Your task to perform on an android device: check android version Image 0: 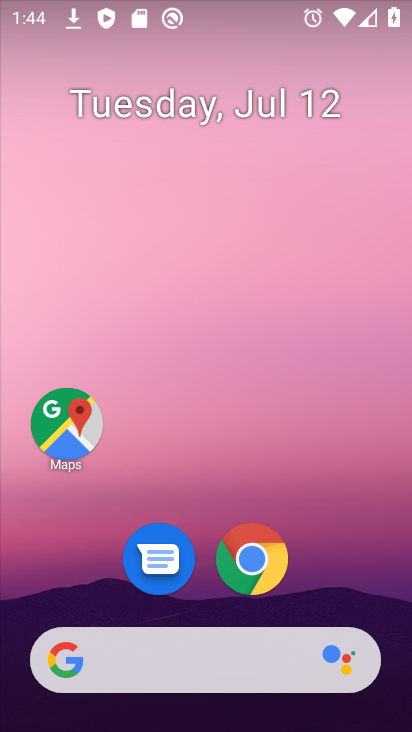
Step 0: drag from (366, 582) to (360, 189)
Your task to perform on an android device: check android version Image 1: 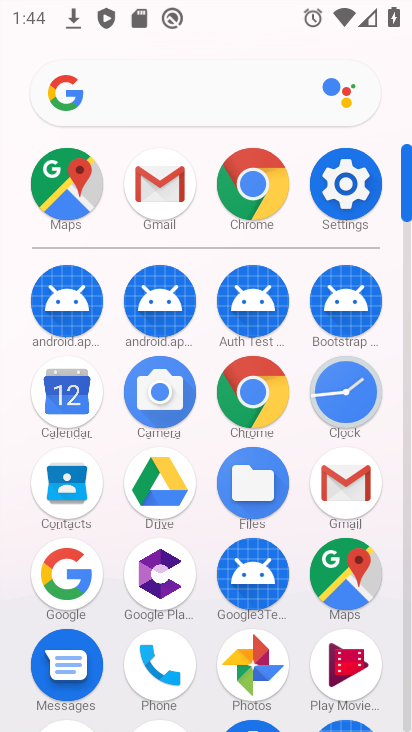
Step 1: click (356, 200)
Your task to perform on an android device: check android version Image 2: 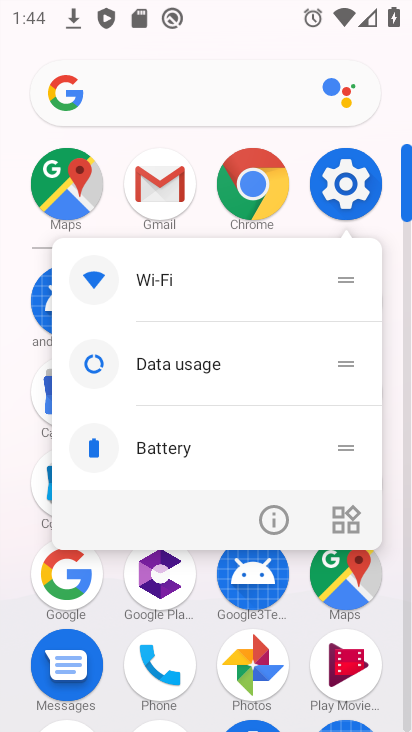
Step 2: click (356, 200)
Your task to perform on an android device: check android version Image 3: 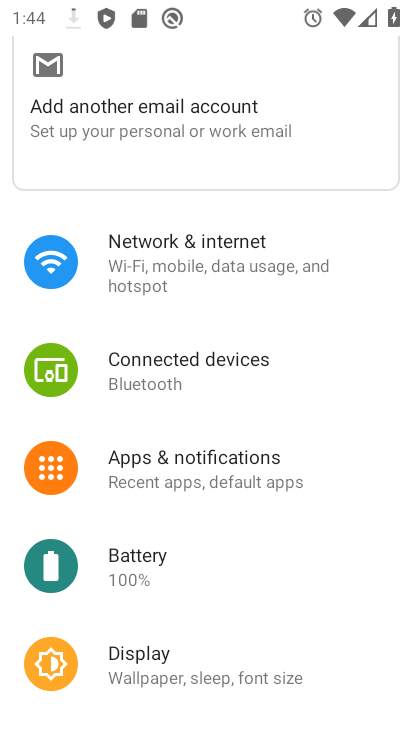
Step 3: drag from (358, 277) to (356, 241)
Your task to perform on an android device: check android version Image 4: 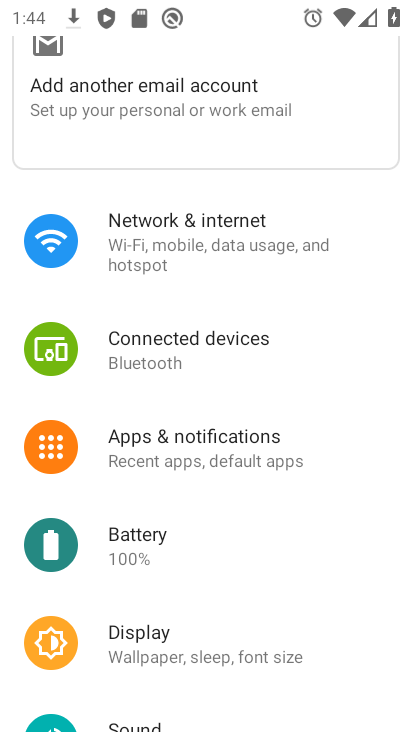
Step 4: drag from (359, 282) to (360, 227)
Your task to perform on an android device: check android version Image 5: 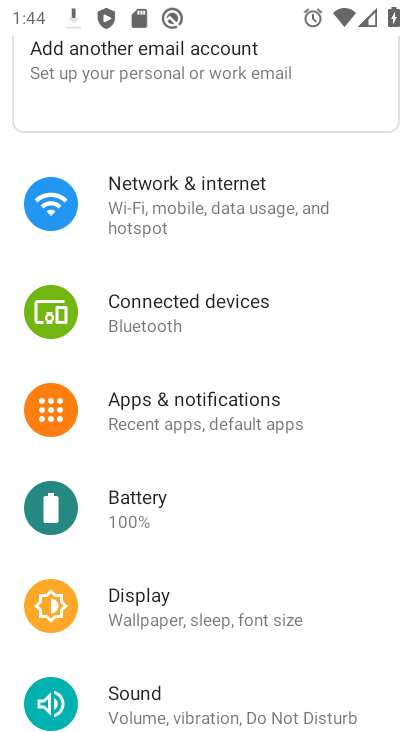
Step 5: drag from (360, 278) to (361, 225)
Your task to perform on an android device: check android version Image 6: 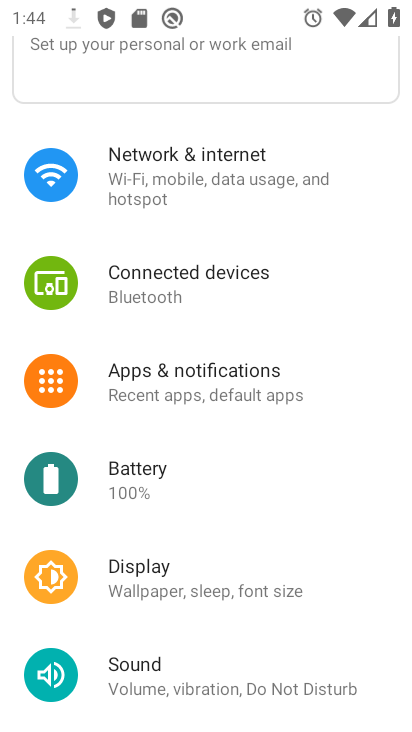
Step 6: drag from (355, 267) to (358, 224)
Your task to perform on an android device: check android version Image 7: 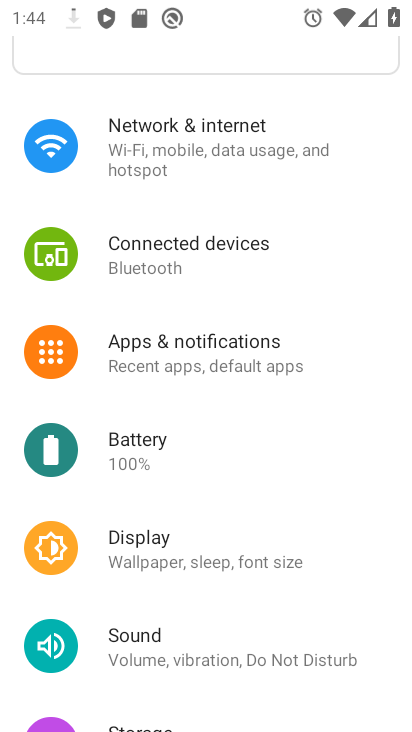
Step 7: drag from (350, 284) to (354, 214)
Your task to perform on an android device: check android version Image 8: 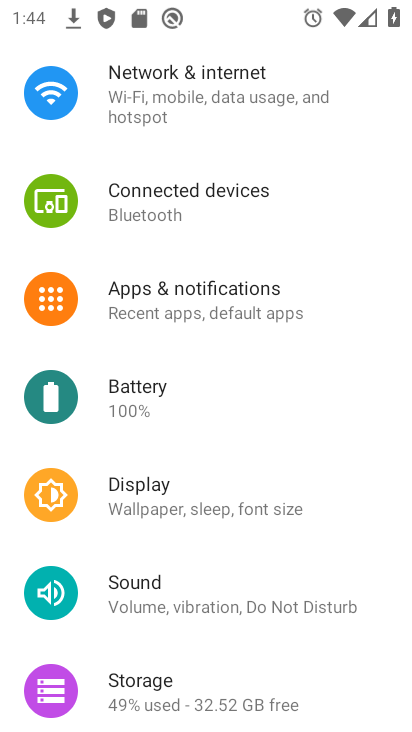
Step 8: drag from (343, 273) to (342, 215)
Your task to perform on an android device: check android version Image 9: 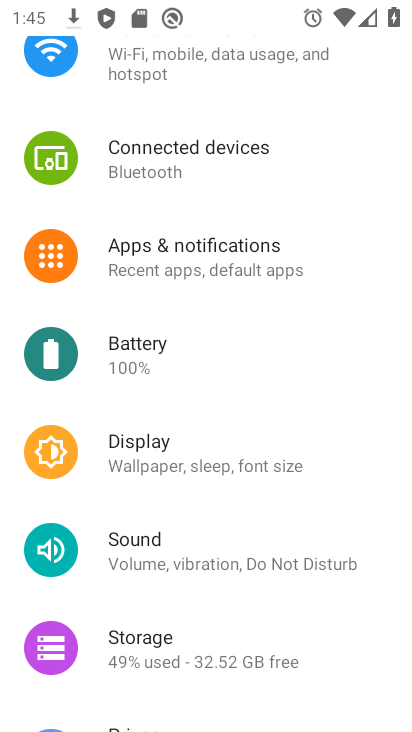
Step 9: drag from (342, 251) to (343, 194)
Your task to perform on an android device: check android version Image 10: 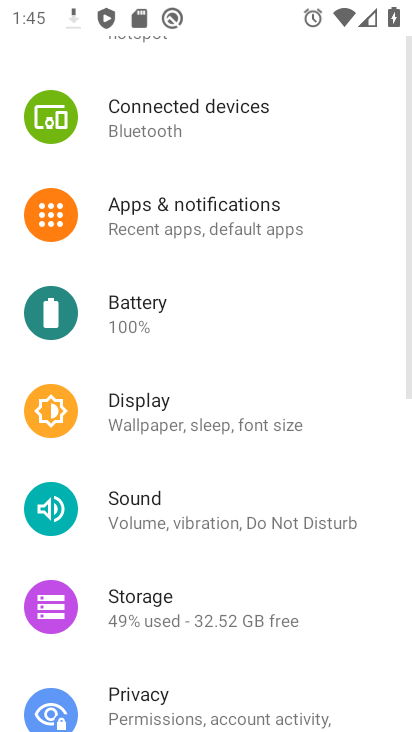
Step 10: drag from (343, 281) to (339, 224)
Your task to perform on an android device: check android version Image 11: 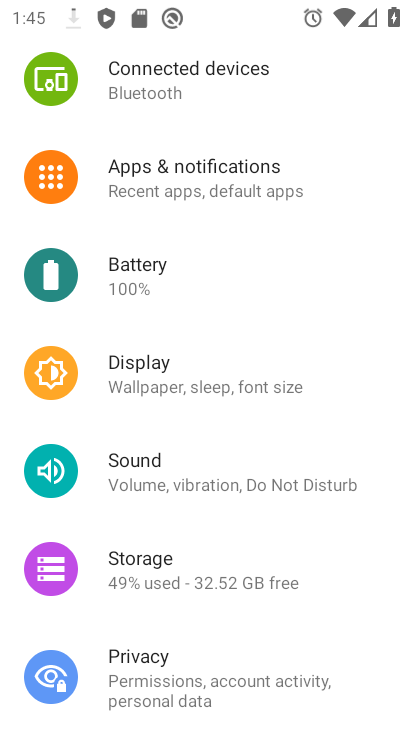
Step 11: drag from (336, 281) to (343, 221)
Your task to perform on an android device: check android version Image 12: 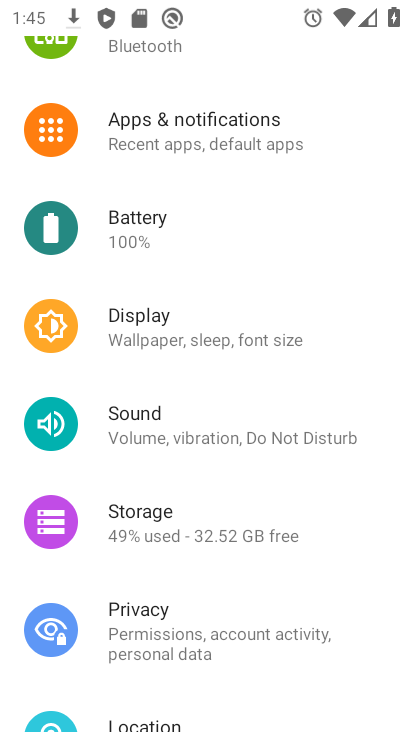
Step 12: drag from (343, 274) to (337, 205)
Your task to perform on an android device: check android version Image 13: 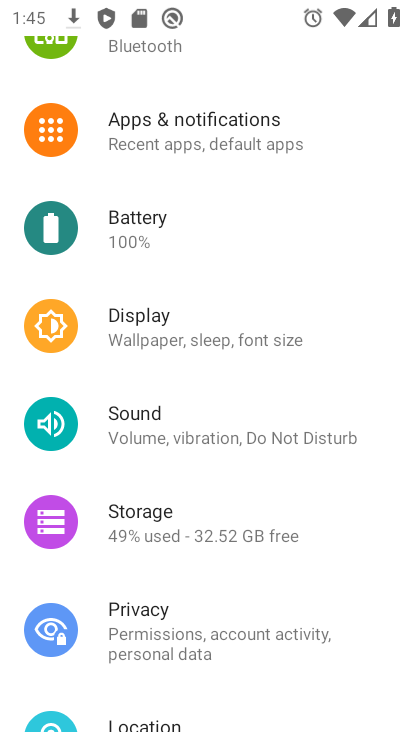
Step 13: drag from (348, 326) to (348, 232)
Your task to perform on an android device: check android version Image 14: 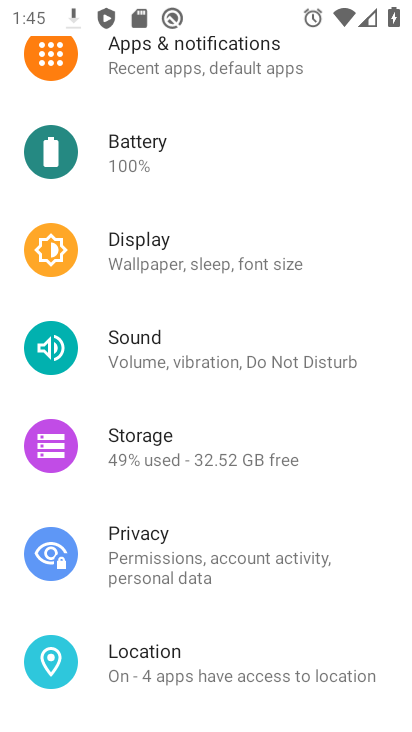
Step 14: drag from (363, 318) to (366, 218)
Your task to perform on an android device: check android version Image 15: 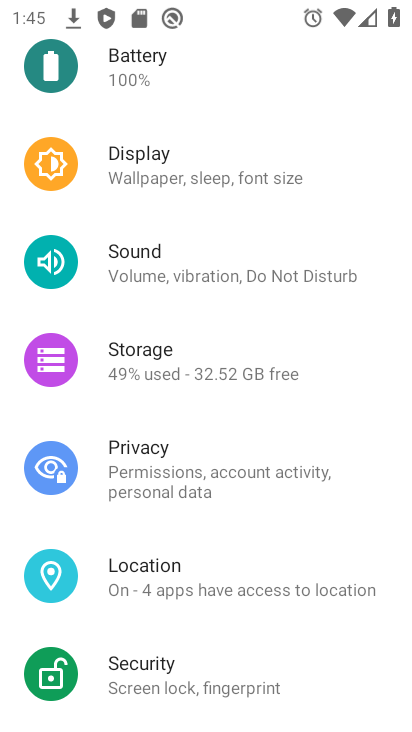
Step 15: drag from (365, 321) to (361, 200)
Your task to perform on an android device: check android version Image 16: 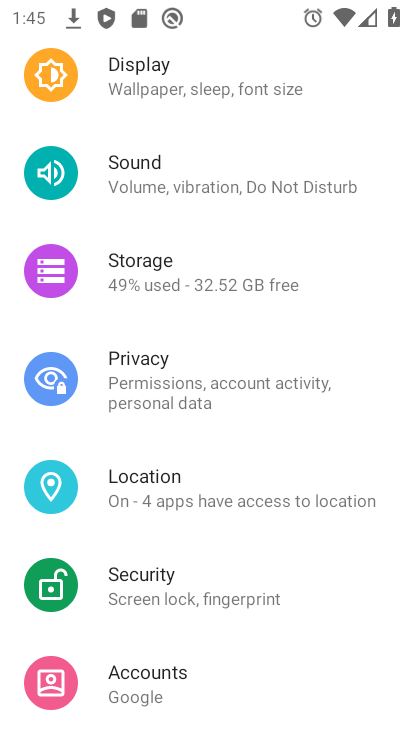
Step 16: drag from (367, 381) to (366, 282)
Your task to perform on an android device: check android version Image 17: 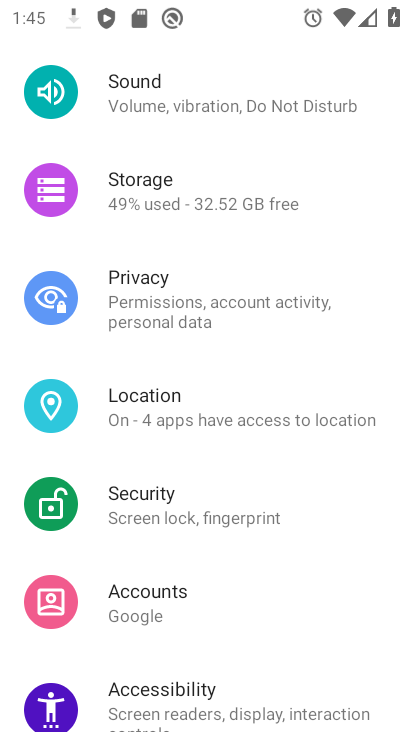
Step 17: drag from (362, 372) to (367, 258)
Your task to perform on an android device: check android version Image 18: 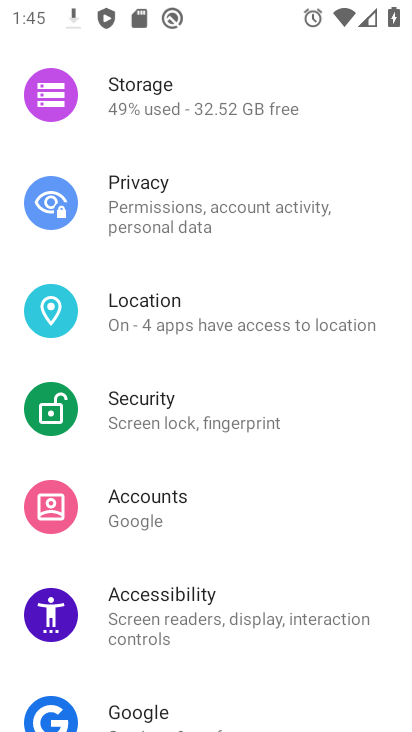
Step 18: drag from (356, 373) to (361, 263)
Your task to perform on an android device: check android version Image 19: 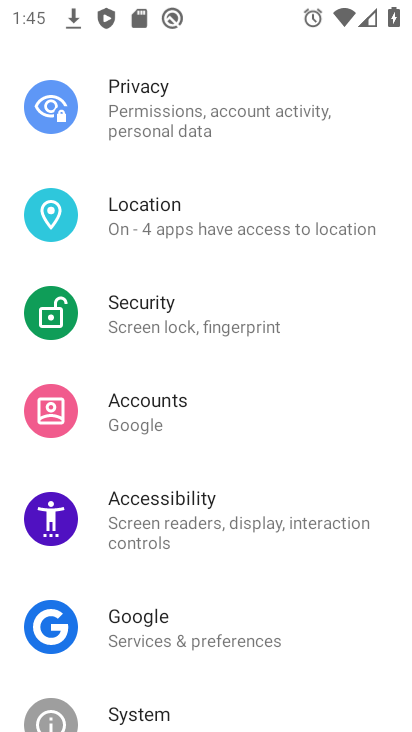
Step 19: drag from (343, 352) to (347, 179)
Your task to perform on an android device: check android version Image 20: 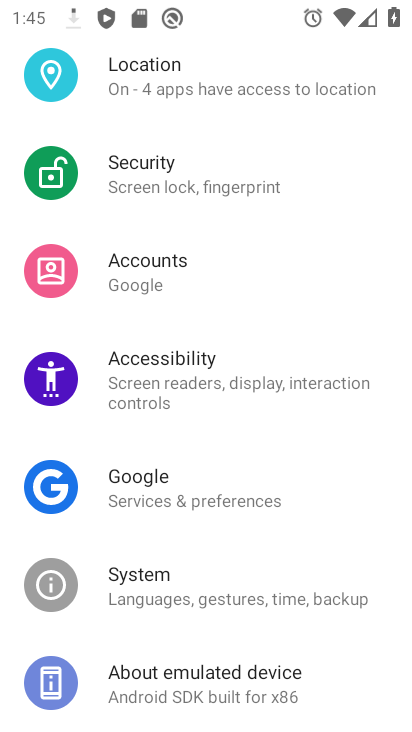
Step 20: drag from (356, 414) to (357, 301)
Your task to perform on an android device: check android version Image 21: 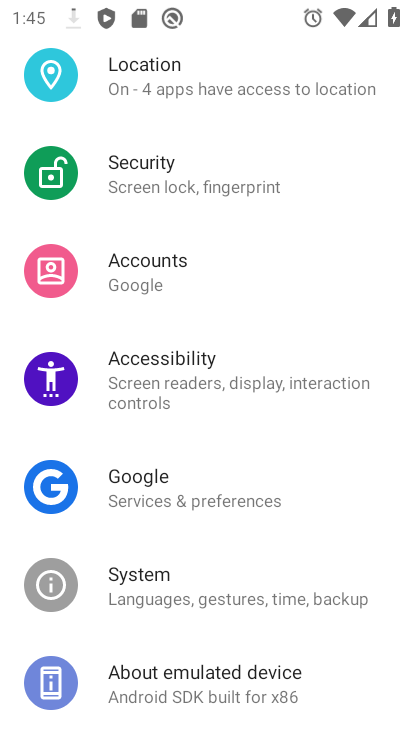
Step 21: click (313, 597)
Your task to perform on an android device: check android version Image 22: 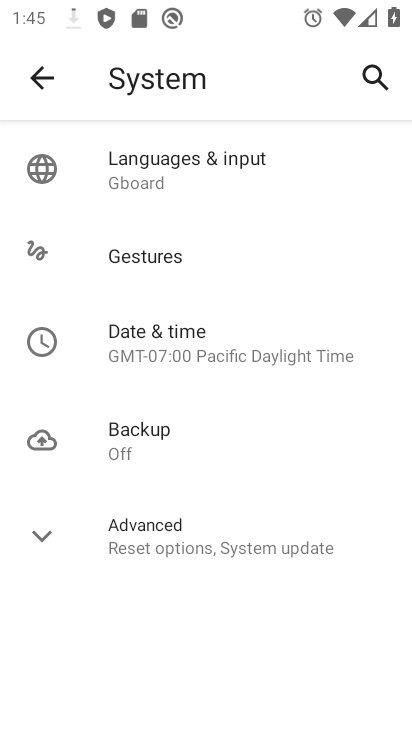
Step 22: click (284, 534)
Your task to perform on an android device: check android version Image 23: 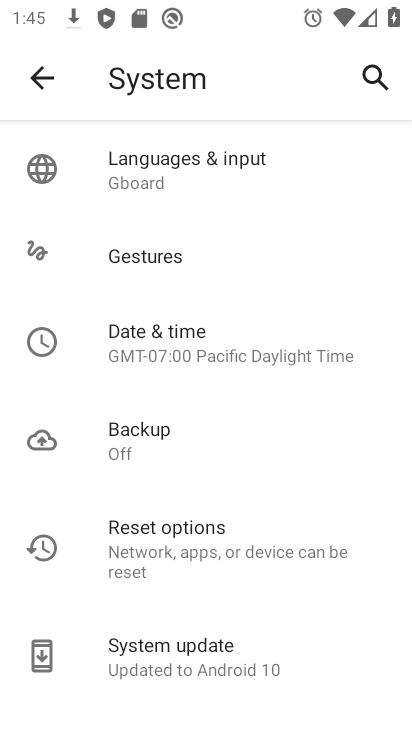
Step 23: drag from (274, 593) to (273, 492)
Your task to perform on an android device: check android version Image 24: 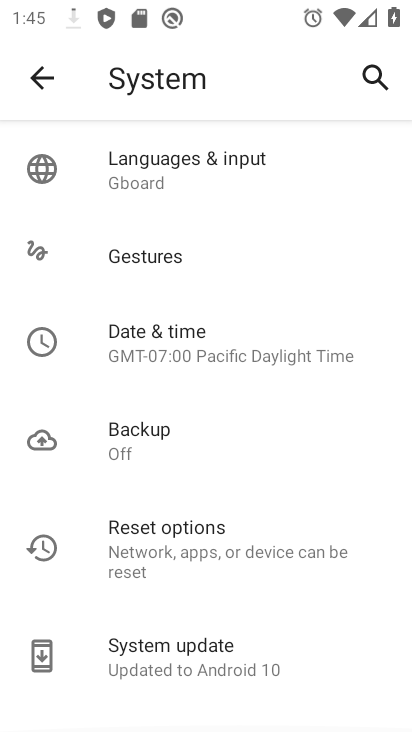
Step 24: click (269, 681)
Your task to perform on an android device: check android version Image 25: 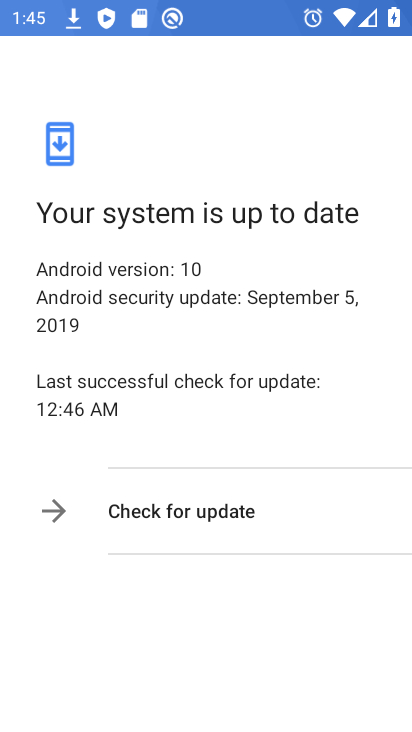
Step 25: task complete